Your task to perform on an android device: Do I have any events tomorrow? Image 0: 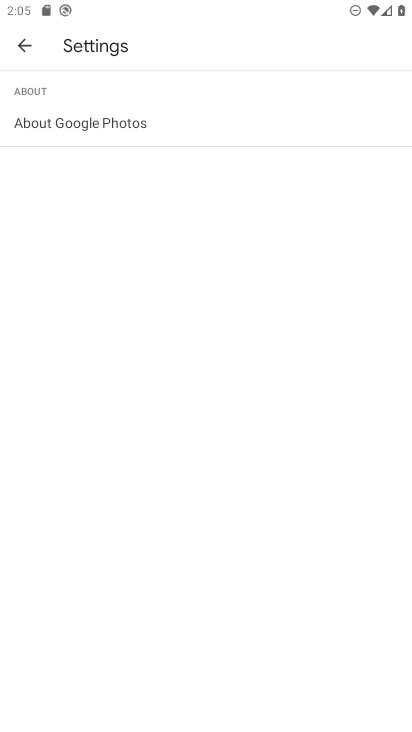
Step 0: press home button
Your task to perform on an android device: Do I have any events tomorrow? Image 1: 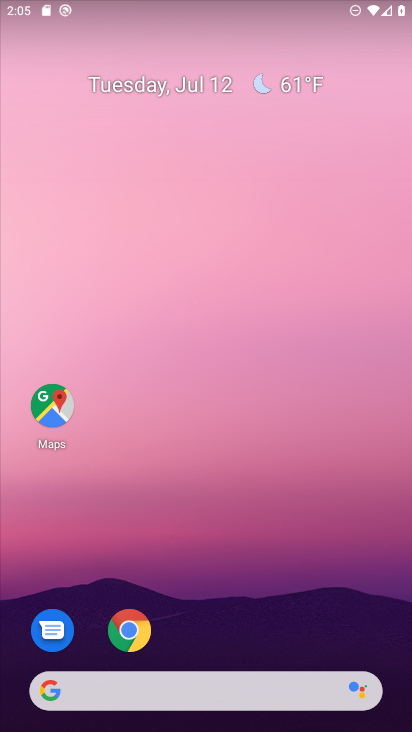
Step 1: drag from (219, 617) to (224, 147)
Your task to perform on an android device: Do I have any events tomorrow? Image 2: 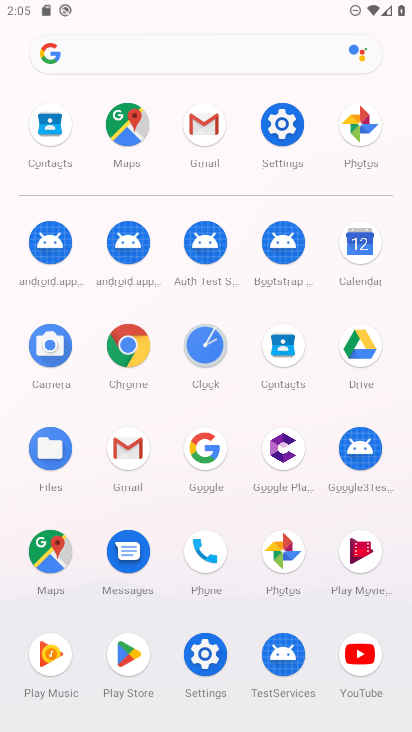
Step 2: click (350, 253)
Your task to perform on an android device: Do I have any events tomorrow? Image 3: 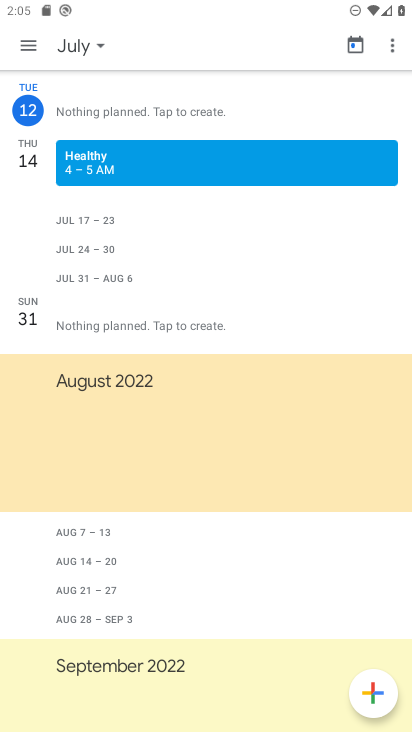
Step 3: task complete